Your task to perform on an android device: choose inbox layout in the gmail app Image 0: 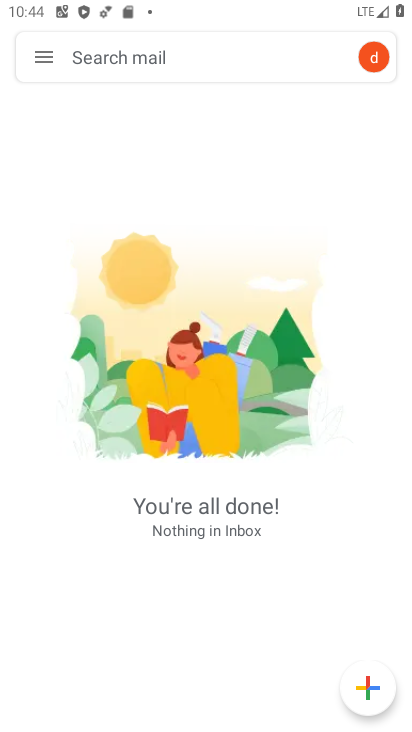
Step 0: click (51, 60)
Your task to perform on an android device: choose inbox layout in the gmail app Image 1: 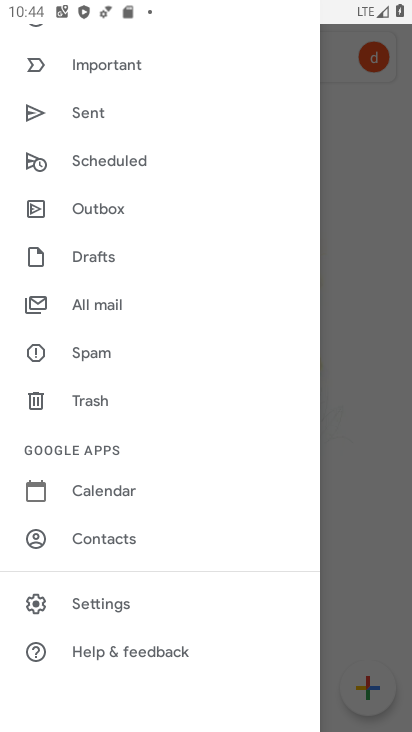
Step 1: drag from (244, 439) to (245, 395)
Your task to perform on an android device: choose inbox layout in the gmail app Image 2: 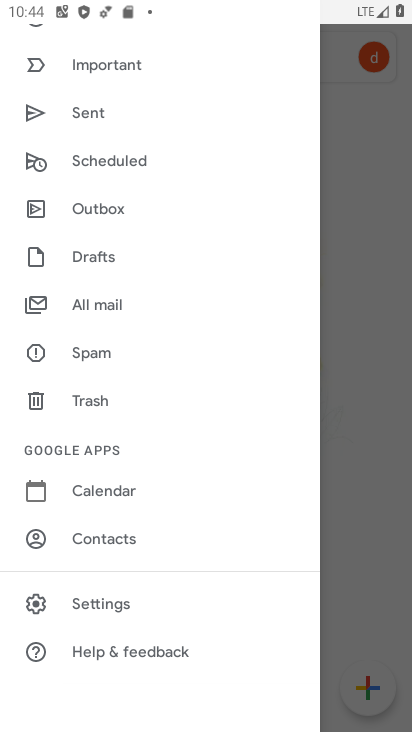
Step 2: click (154, 609)
Your task to perform on an android device: choose inbox layout in the gmail app Image 3: 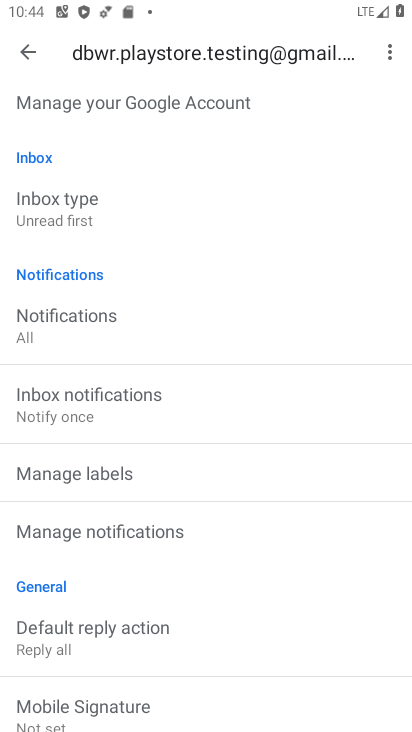
Step 3: drag from (245, 573) to (245, 519)
Your task to perform on an android device: choose inbox layout in the gmail app Image 4: 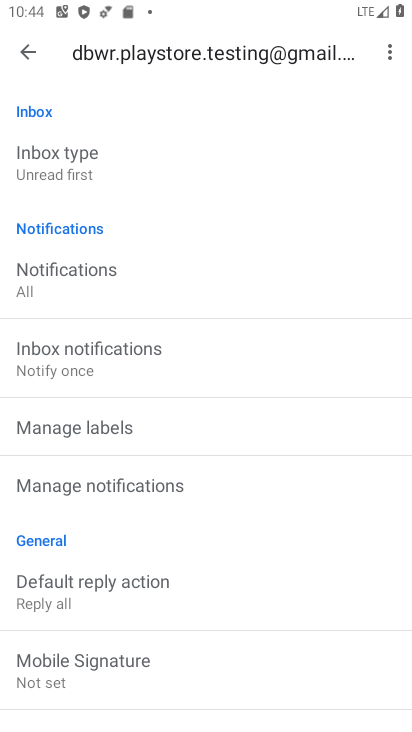
Step 4: drag from (273, 597) to (272, 531)
Your task to perform on an android device: choose inbox layout in the gmail app Image 5: 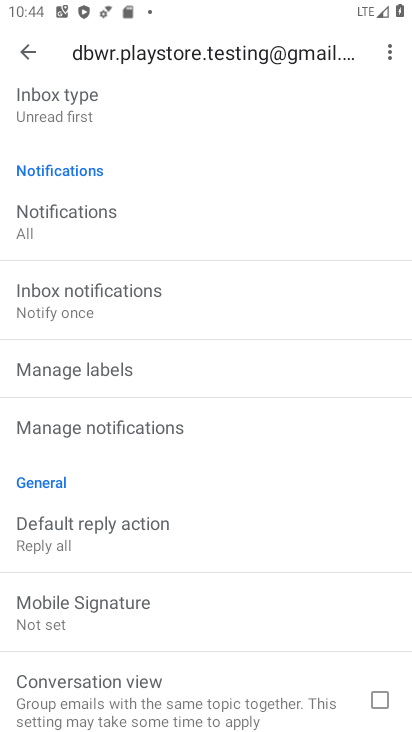
Step 5: click (271, 585)
Your task to perform on an android device: choose inbox layout in the gmail app Image 6: 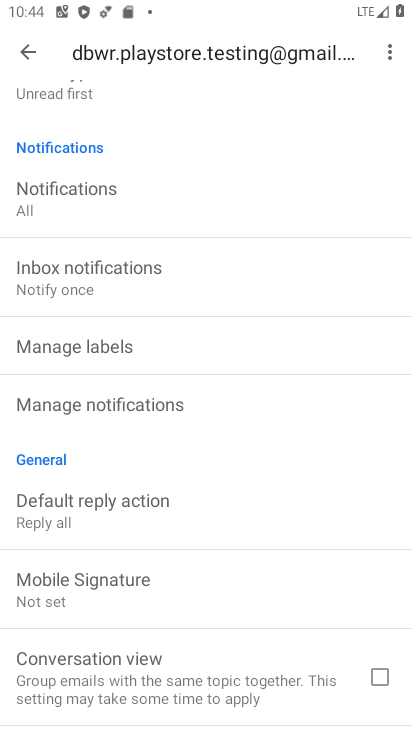
Step 6: drag from (278, 397) to (280, 485)
Your task to perform on an android device: choose inbox layout in the gmail app Image 7: 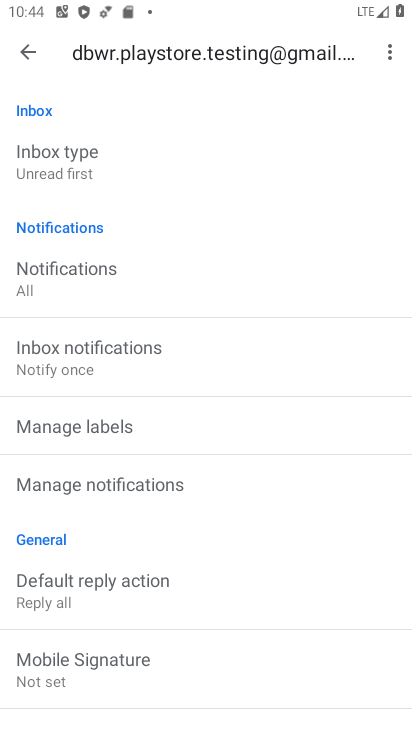
Step 7: drag from (292, 202) to (298, 334)
Your task to perform on an android device: choose inbox layout in the gmail app Image 8: 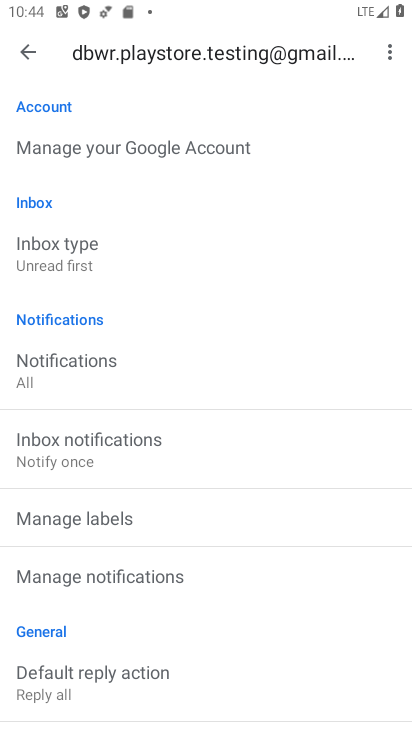
Step 8: drag from (307, 179) to (306, 300)
Your task to perform on an android device: choose inbox layout in the gmail app Image 9: 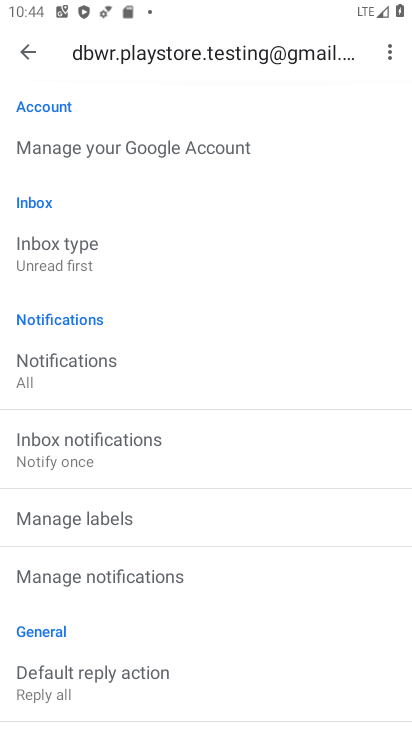
Step 9: click (69, 260)
Your task to perform on an android device: choose inbox layout in the gmail app Image 10: 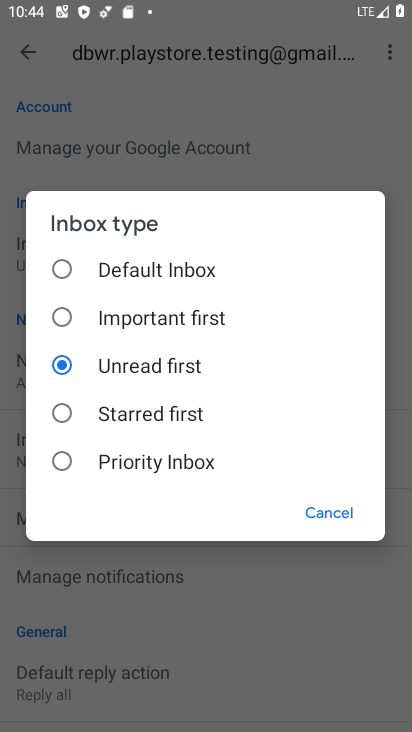
Step 10: click (181, 328)
Your task to perform on an android device: choose inbox layout in the gmail app Image 11: 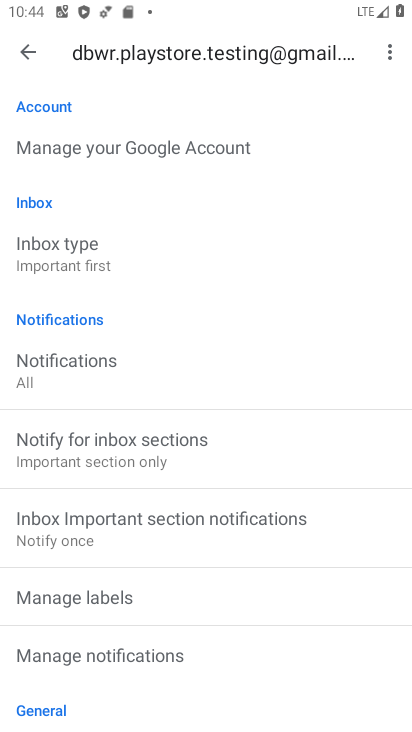
Step 11: task complete